Your task to perform on an android device: Open Chrome and go to settings Image 0: 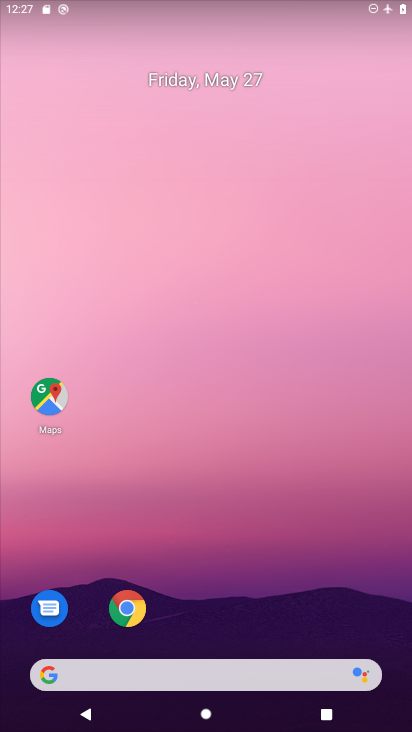
Step 0: press home button
Your task to perform on an android device: Open Chrome and go to settings Image 1: 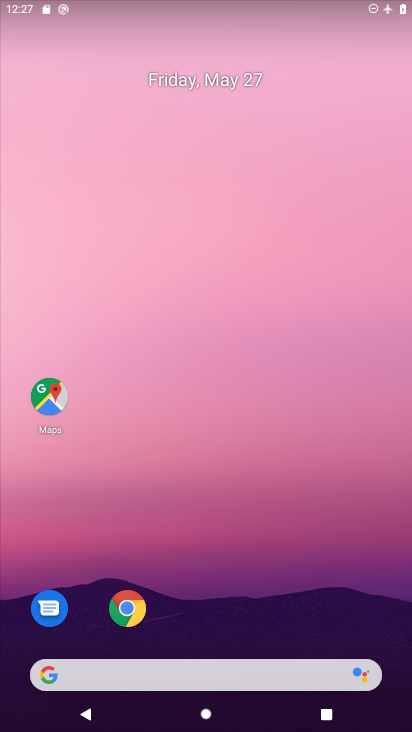
Step 1: click (127, 606)
Your task to perform on an android device: Open Chrome and go to settings Image 2: 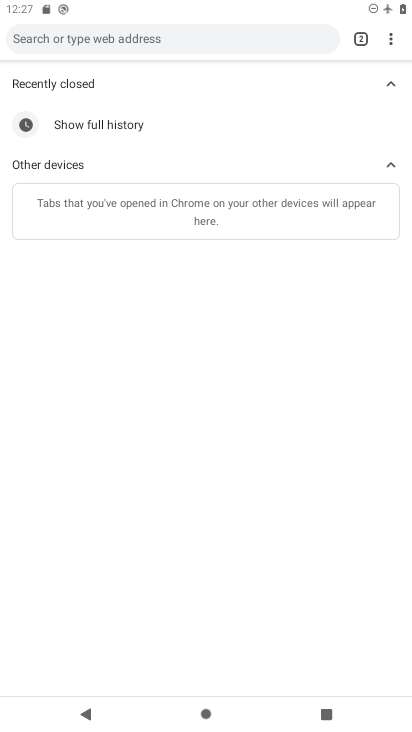
Step 2: task complete